Your task to perform on an android device: What's the weather going to be tomorrow? Image 0: 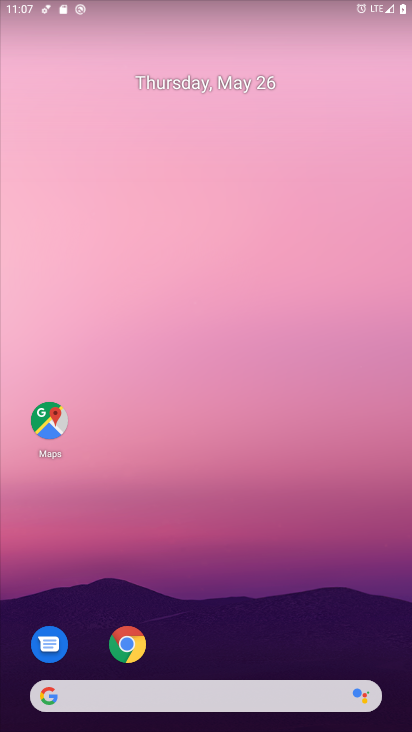
Step 0: click (189, 696)
Your task to perform on an android device: What's the weather going to be tomorrow? Image 1: 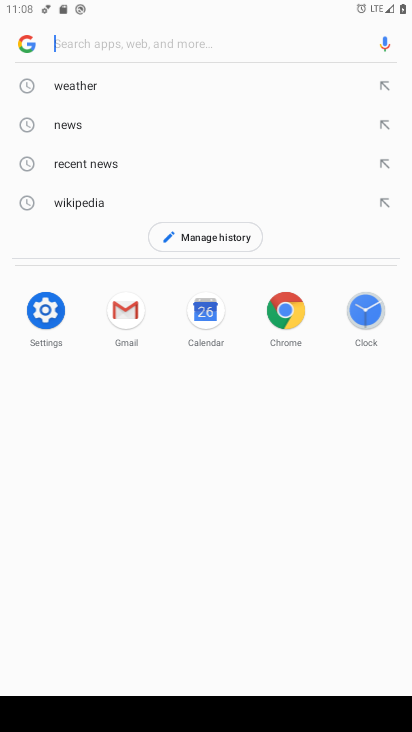
Step 1: click (78, 84)
Your task to perform on an android device: What's the weather going to be tomorrow? Image 2: 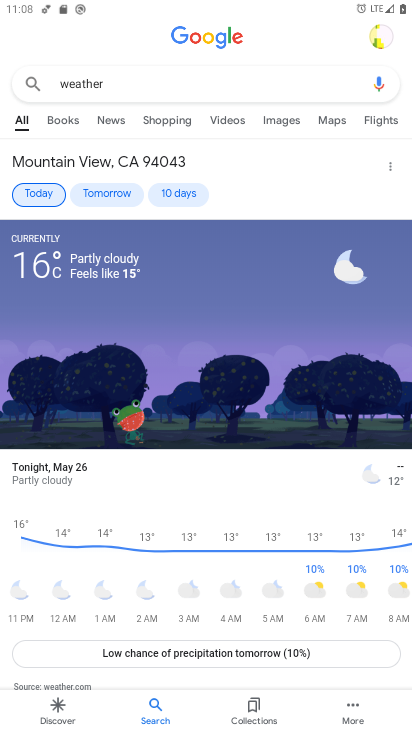
Step 2: click (110, 188)
Your task to perform on an android device: What's the weather going to be tomorrow? Image 3: 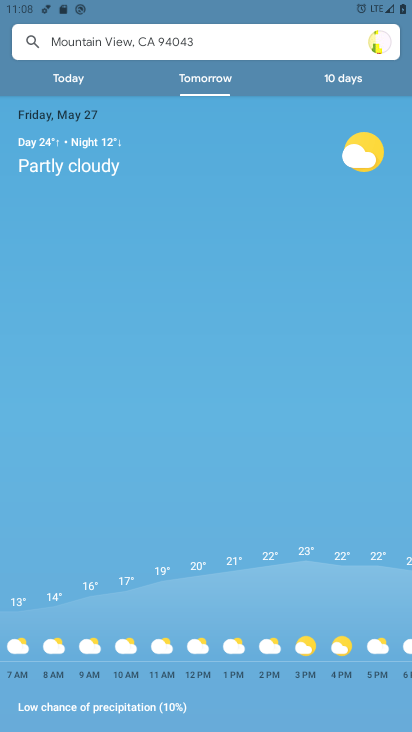
Step 3: task complete